Your task to perform on an android device: make emails show in primary in the gmail app Image 0: 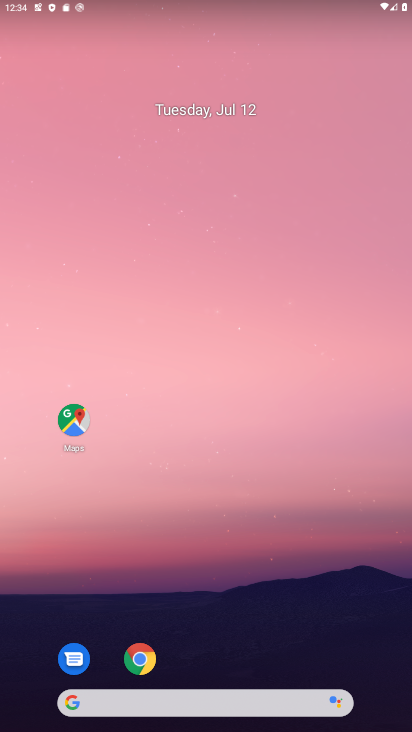
Step 0: drag from (195, 336) to (212, 25)
Your task to perform on an android device: make emails show in primary in the gmail app Image 1: 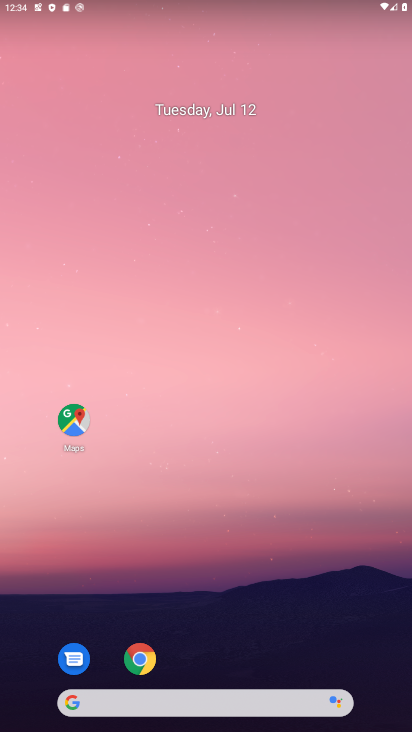
Step 1: drag from (226, 721) to (238, 199)
Your task to perform on an android device: make emails show in primary in the gmail app Image 2: 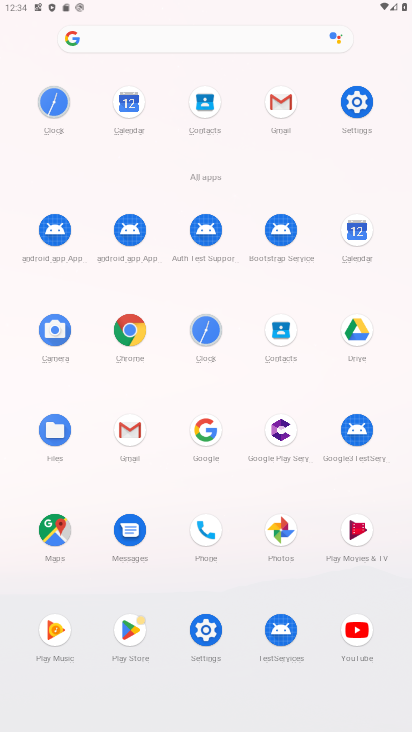
Step 2: click (129, 432)
Your task to perform on an android device: make emails show in primary in the gmail app Image 3: 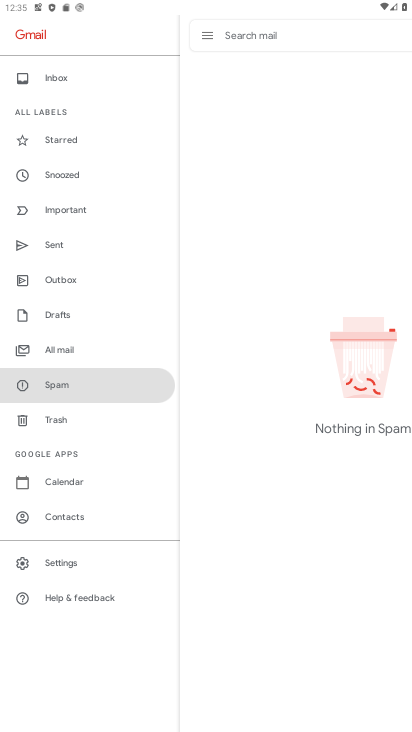
Step 3: click (59, 558)
Your task to perform on an android device: make emails show in primary in the gmail app Image 4: 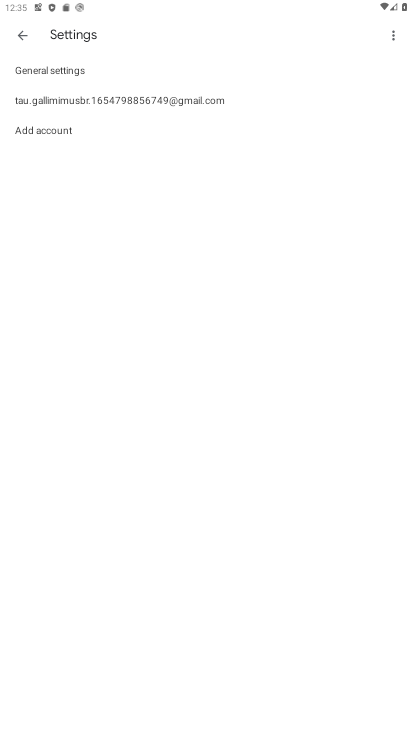
Step 4: click (102, 101)
Your task to perform on an android device: make emails show in primary in the gmail app Image 5: 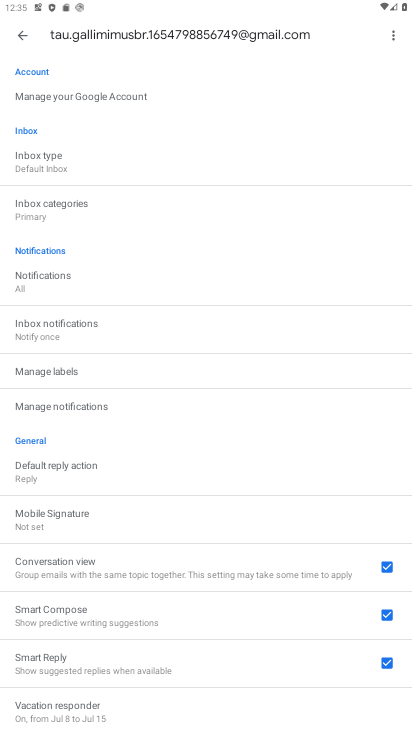
Step 5: task complete